Your task to perform on an android device: turn on airplane mode Image 0: 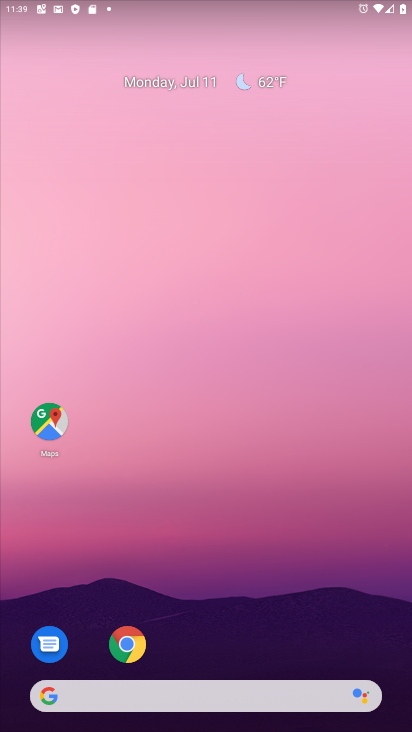
Step 0: drag from (186, 658) to (167, 45)
Your task to perform on an android device: turn on airplane mode Image 1: 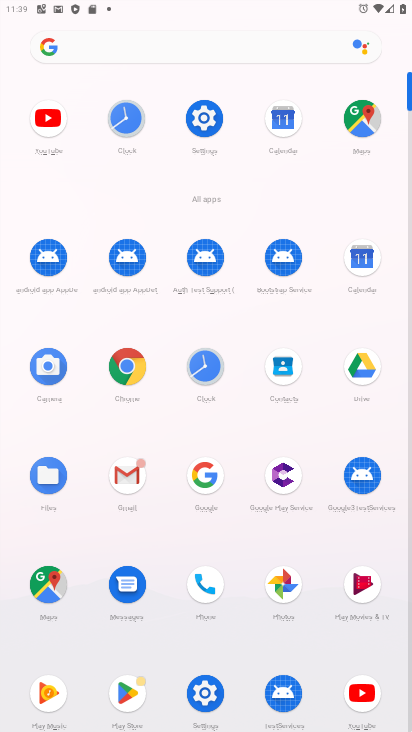
Step 1: click (200, 126)
Your task to perform on an android device: turn on airplane mode Image 2: 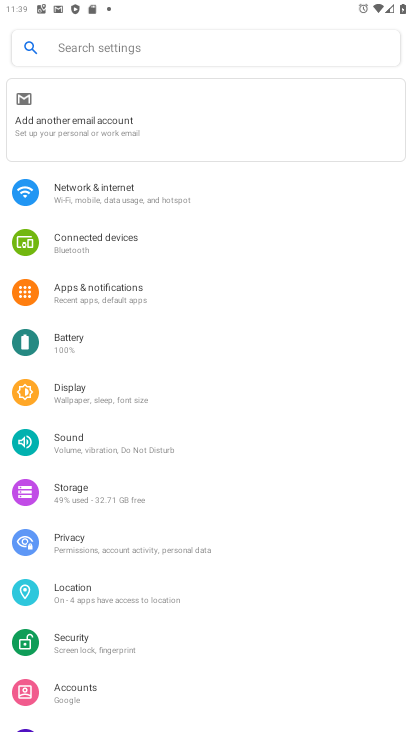
Step 2: click (119, 190)
Your task to perform on an android device: turn on airplane mode Image 3: 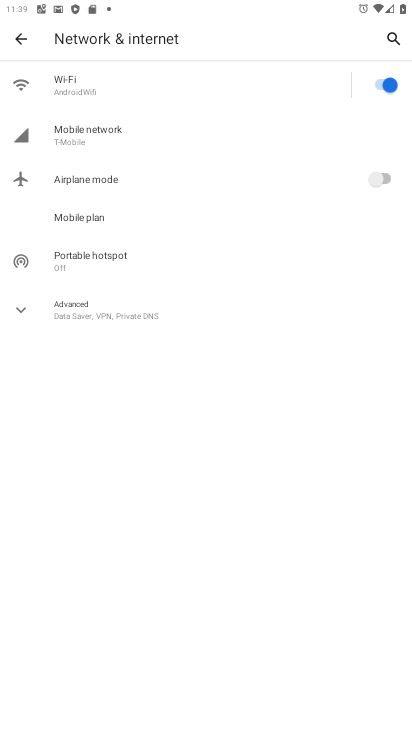
Step 3: click (377, 183)
Your task to perform on an android device: turn on airplane mode Image 4: 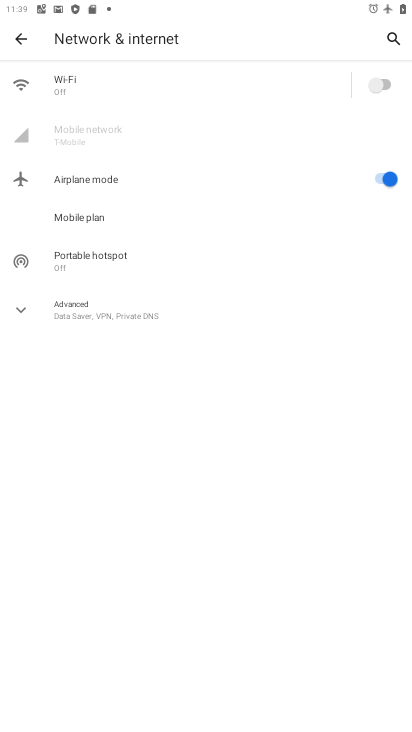
Step 4: task complete